Your task to perform on an android device: Is it going to rain today? Image 0: 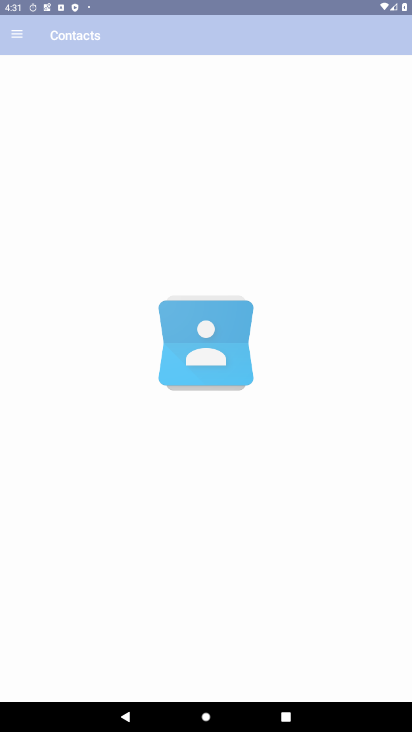
Step 0: drag from (260, 669) to (400, 202)
Your task to perform on an android device: Is it going to rain today? Image 1: 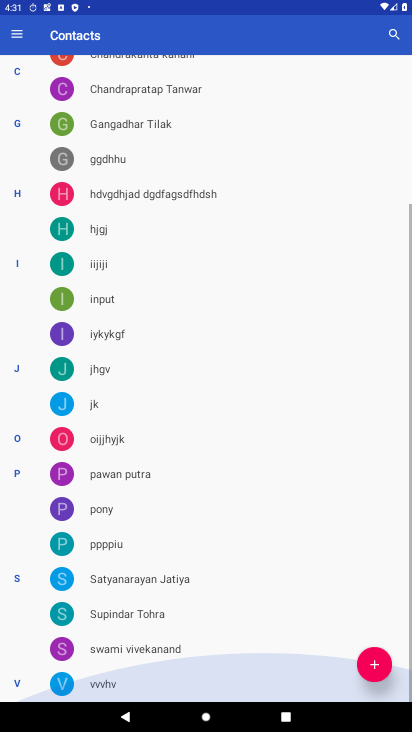
Step 1: press home button
Your task to perform on an android device: Is it going to rain today? Image 2: 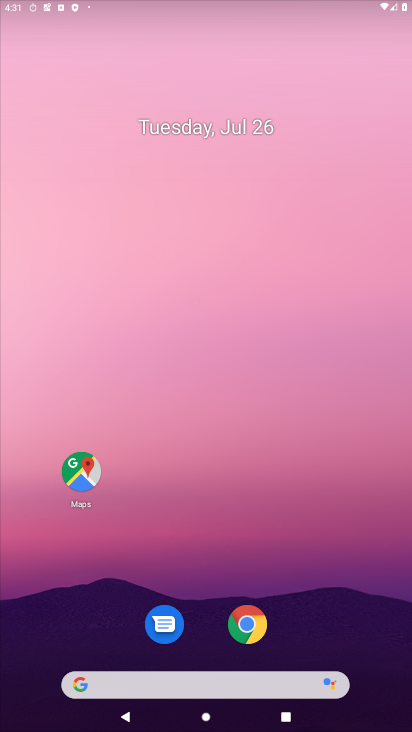
Step 2: drag from (236, 676) to (241, 99)
Your task to perform on an android device: Is it going to rain today? Image 3: 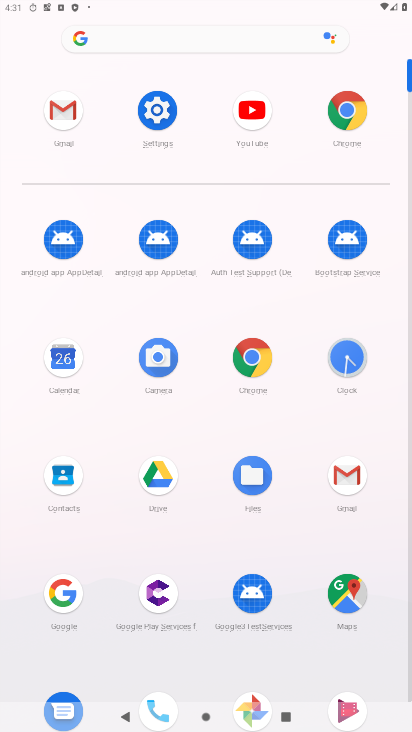
Step 3: click (254, 369)
Your task to perform on an android device: Is it going to rain today? Image 4: 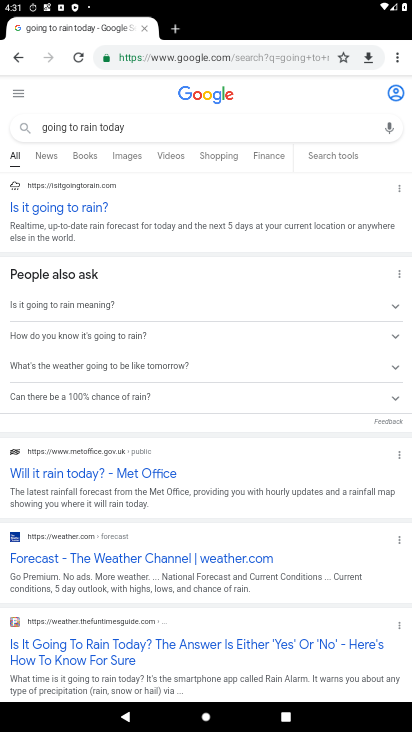
Step 4: click (238, 53)
Your task to perform on an android device: Is it going to rain today? Image 5: 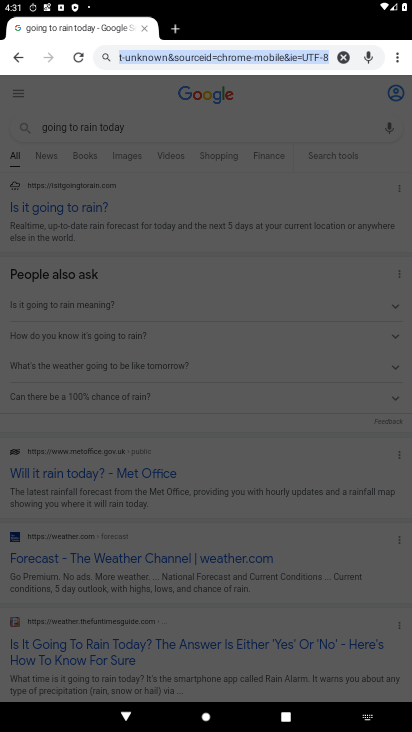
Step 5: type "going to rain today"
Your task to perform on an android device: Is it going to rain today? Image 6: 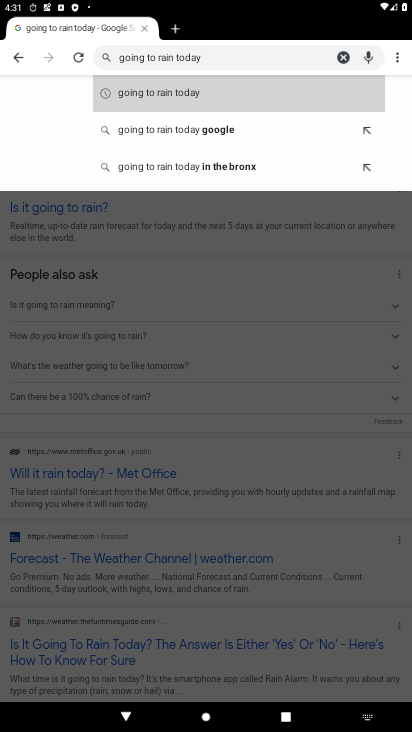
Step 6: click (246, 99)
Your task to perform on an android device: Is it going to rain today? Image 7: 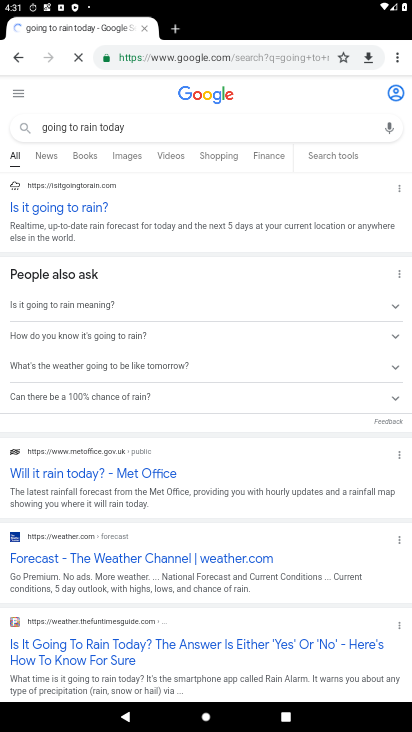
Step 7: task complete